Your task to perform on an android device: turn notification dots off Image 0: 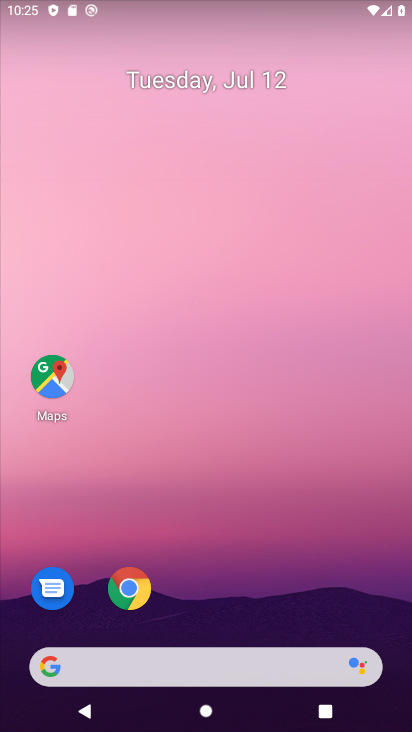
Step 0: drag from (227, 642) to (319, 106)
Your task to perform on an android device: turn notification dots off Image 1: 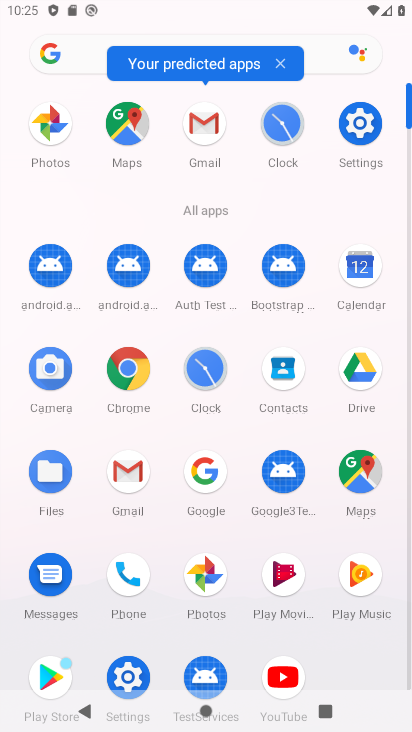
Step 1: click (134, 664)
Your task to perform on an android device: turn notification dots off Image 2: 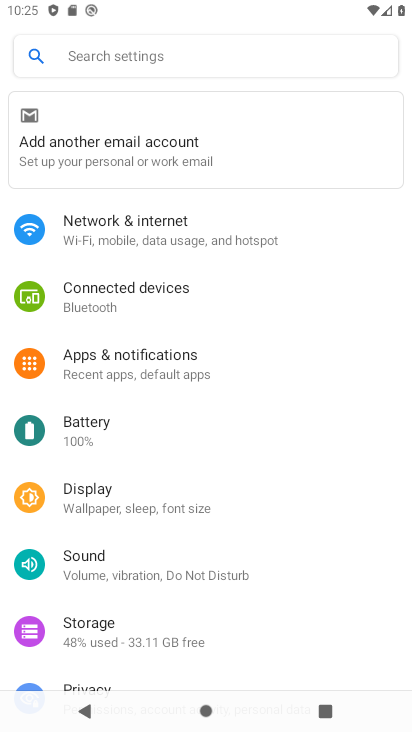
Step 2: click (149, 387)
Your task to perform on an android device: turn notification dots off Image 3: 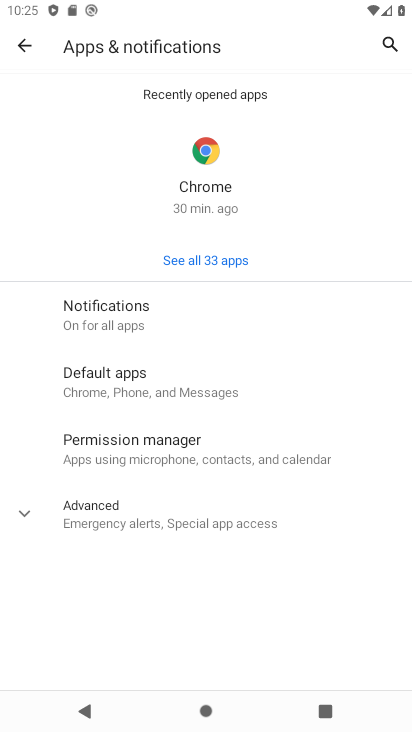
Step 3: click (212, 324)
Your task to perform on an android device: turn notification dots off Image 4: 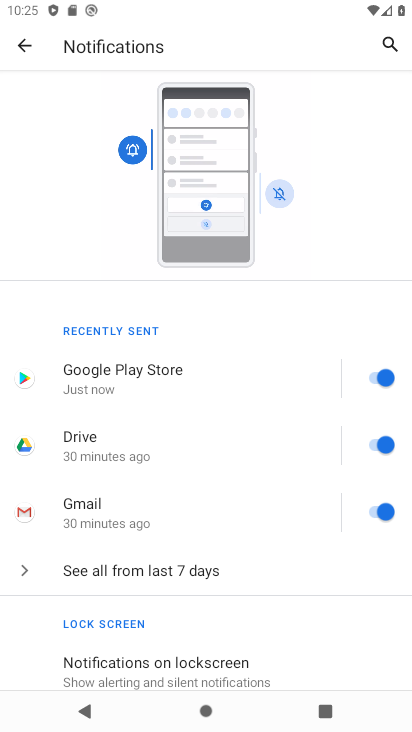
Step 4: drag from (178, 628) to (260, 346)
Your task to perform on an android device: turn notification dots off Image 5: 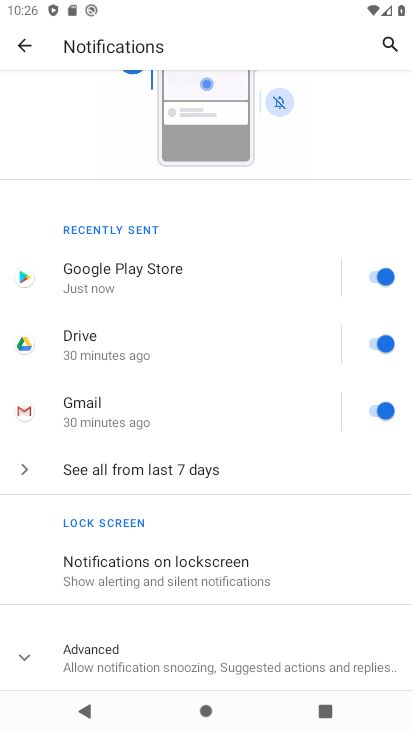
Step 5: click (138, 649)
Your task to perform on an android device: turn notification dots off Image 6: 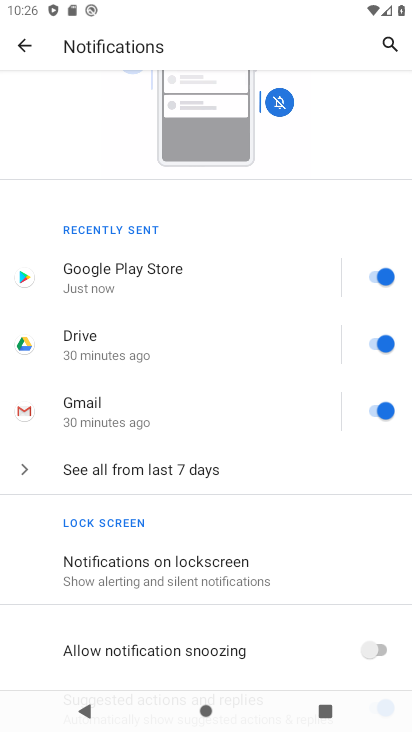
Step 6: drag from (148, 657) to (269, 307)
Your task to perform on an android device: turn notification dots off Image 7: 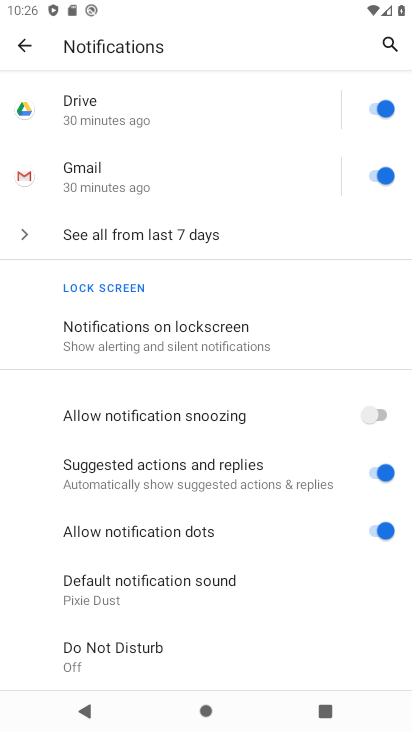
Step 7: click (380, 529)
Your task to perform on an android device: turn notification dots off Image 8: 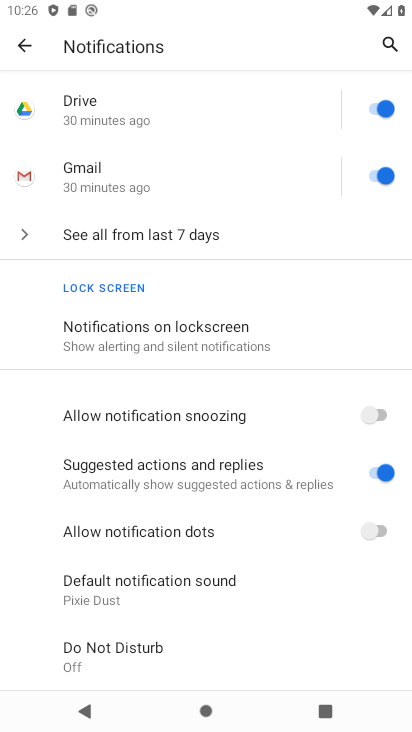
Step 8: task complete